Your task to perform on an android device: Search for pizza restaurants on Maps Image 0: 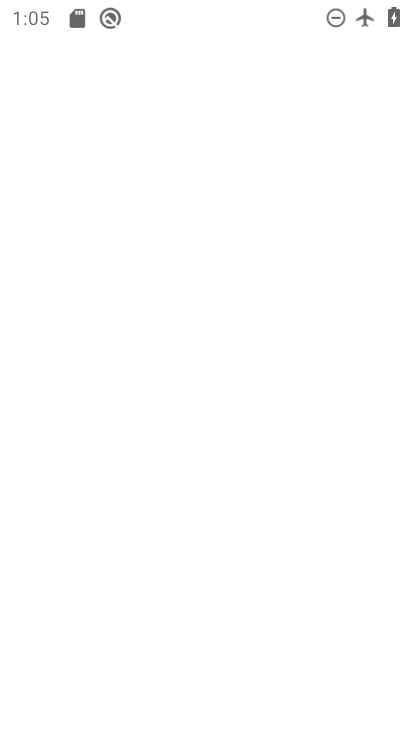
Step 0: press home button
Your task to perform on an android device: Search for pizza restaurants on Maps Image 1: 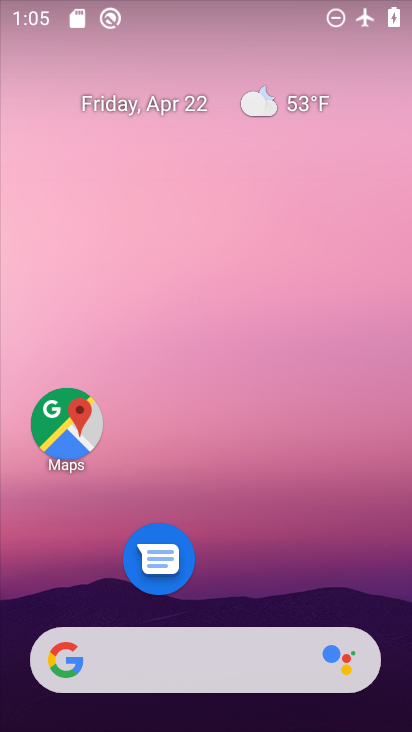
Step 1: drag from (241, 712) to (225, 278)
Your task to perform on an android device: Search for pizza restaurants on Maps Image 2: 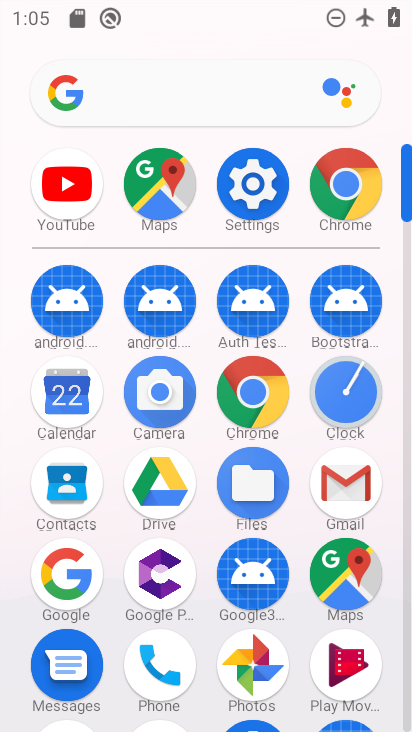
Step 2: click (351, 570)
Your task to perform on an android device: Search for pizza restaurants on Maps Image 3: 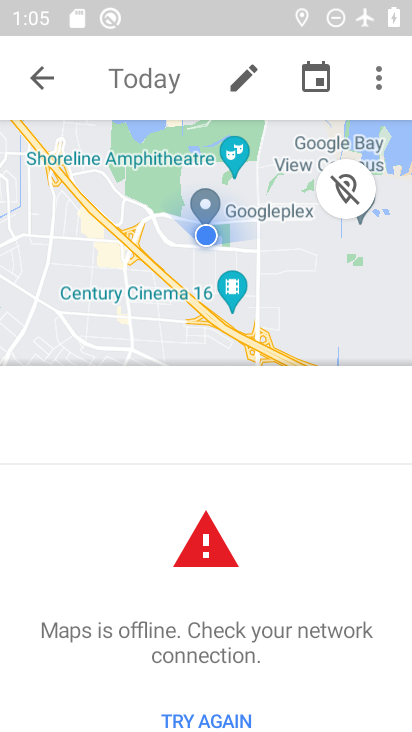
Step 3: click (39, 77)
Your task to perform on an android device: Search for pizza restaurants on Maps Image 4: 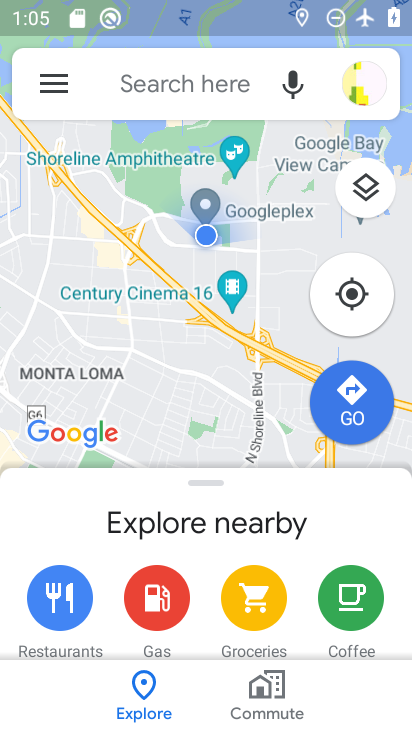
Step 4: click (207, 85)
Your task to perform on an android device: Search for pizza restaurants on Maps Image 5: 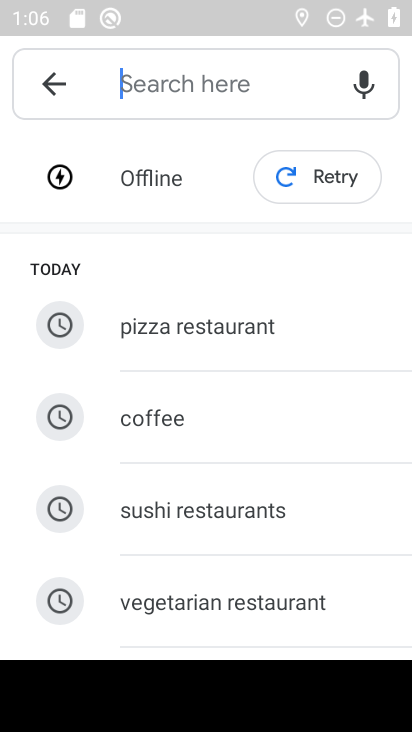
Step 5: type "pizza restaurants"
Your task to perform on an android device: Search for pizza restaurants on Maps Image 6: 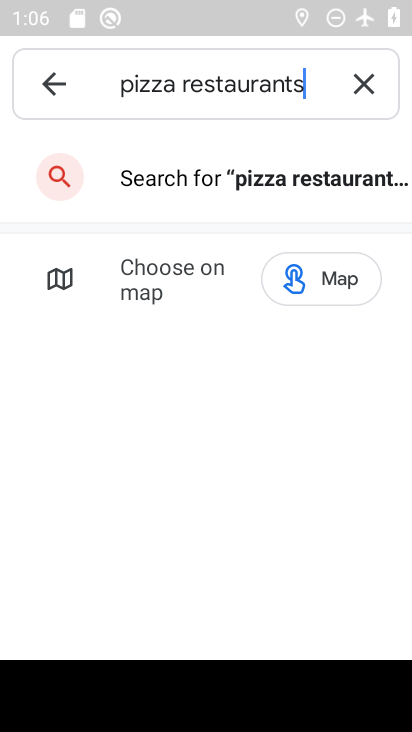
Step 6: task complete